Your task to perform on an android device: turn off notifications settings in the gmail app Image 0: 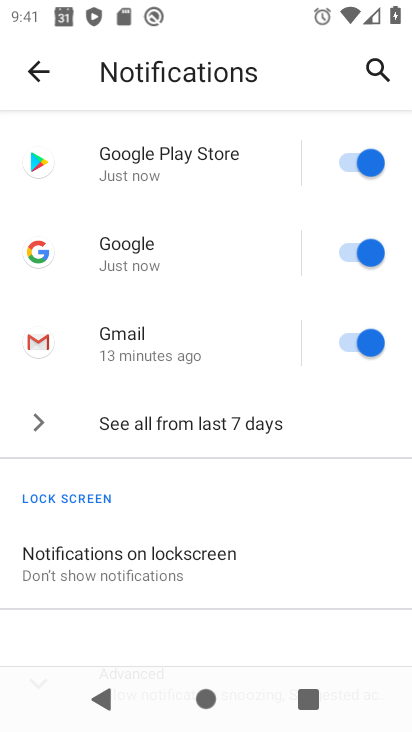
Step 0: press home button
Your task to perform on an android device: turn off notifications settings in the gmail app Image 1: 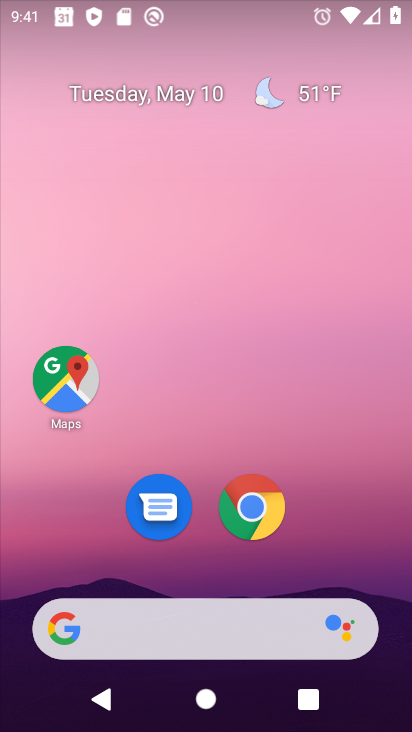
Step 1: drag from (202, 564) to (240, 38)
Your task to perform on an android device: turn off notifications settings in the gmail app Image 2: 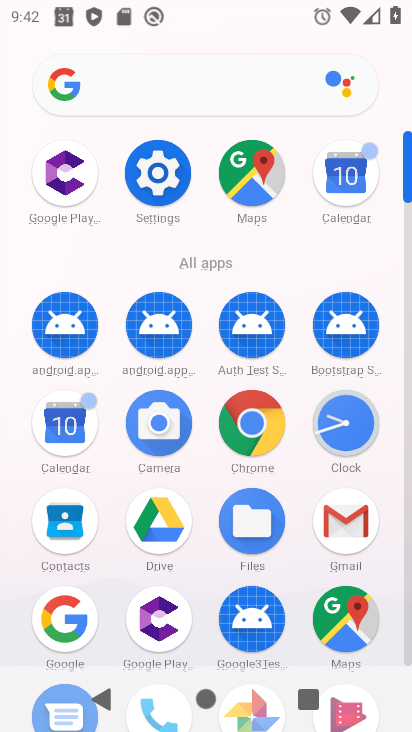
Step 2: click (356, 541)
Your task to perform on an android device: turn off notifications settings in the gmail app Image 3: 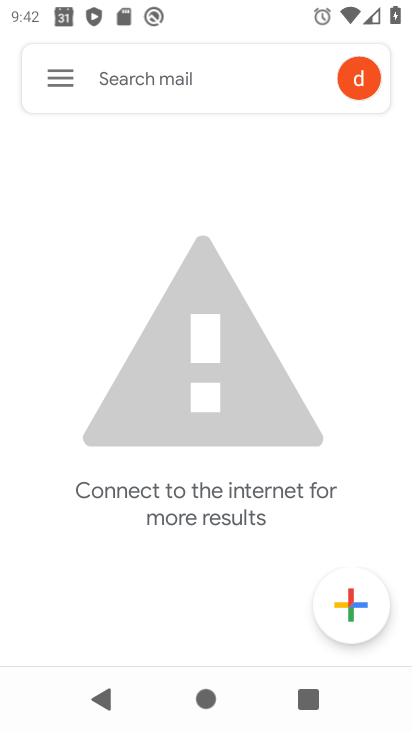
Step 3: click (69, 91)
Your task to perform on an android device: turn off notifications settings in the gmail app Image 4: 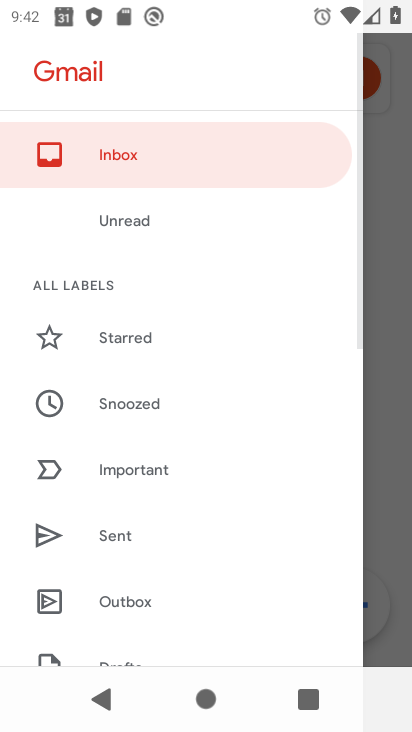
Step 4: drag from (164, 606) to (207, 128)
Your task to perform on an android device: turn off notifications settings in the gmail app Image 5: 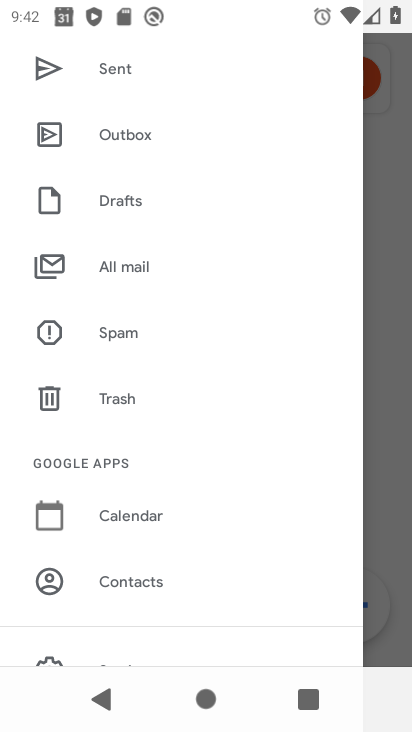
Step 5: drag from (127, 549) to (192, 97)
Your task to perform on an android device: turn off notifications settings in the gmail app Image 6: 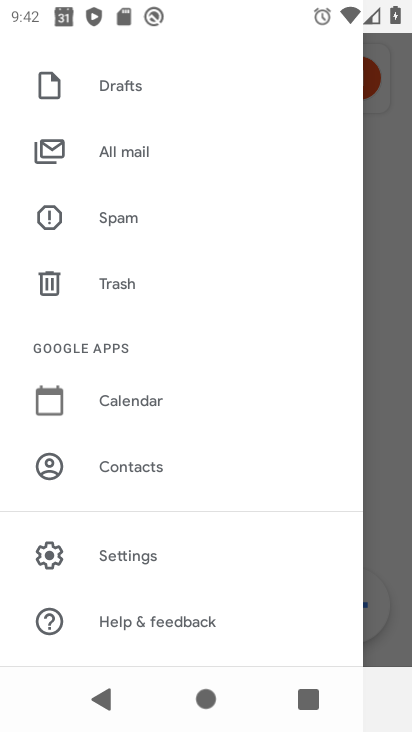
Step 6: click (182, 531)
Your task to perform on an android device: turn off notifications settings in the gmail app Image 7: 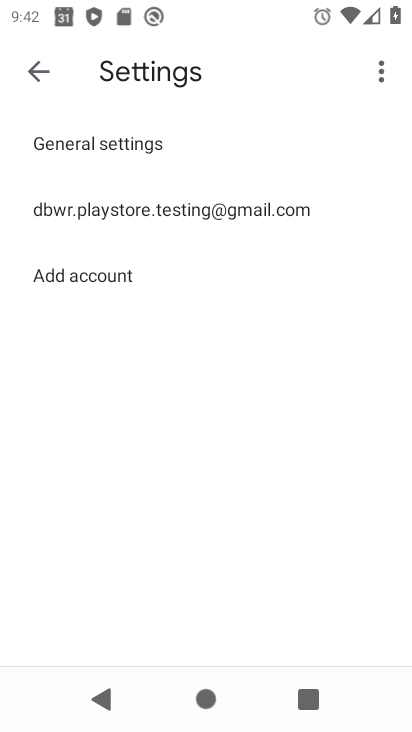
Step 7: click (237, 195)
Your task to perform on an android device: turn off notifications settings in the gmail app Image 8: 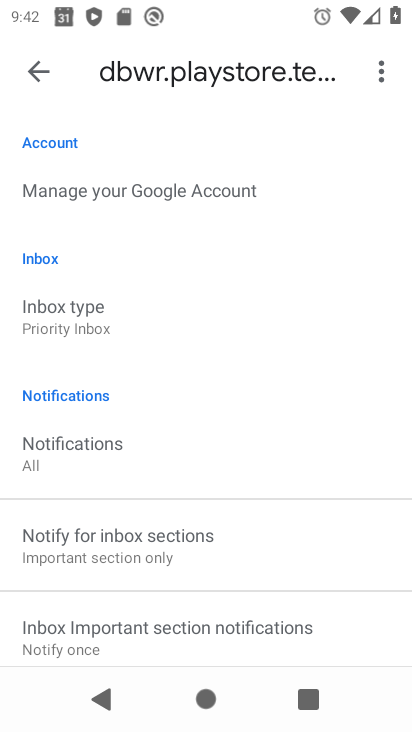
Step 8: click (210, 460)
Your task to perform on an android device: turn off notifications settings in the gmail app Image 9: 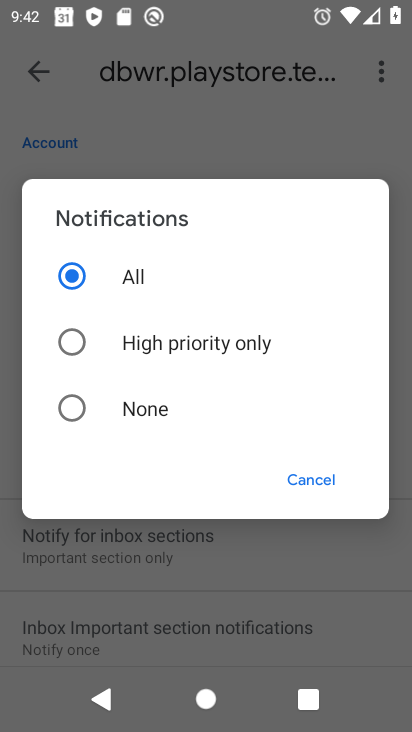
Step 9: click (134, 415)
Your task to perform on an android device: turn off notifications settings in the gmail app Image 10: 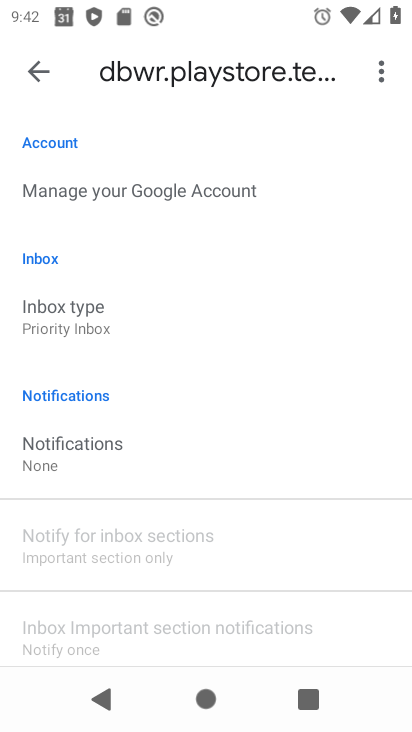
Step 10: task complete